Your task to perform on an android device: open chrome privacy settings Image 0: 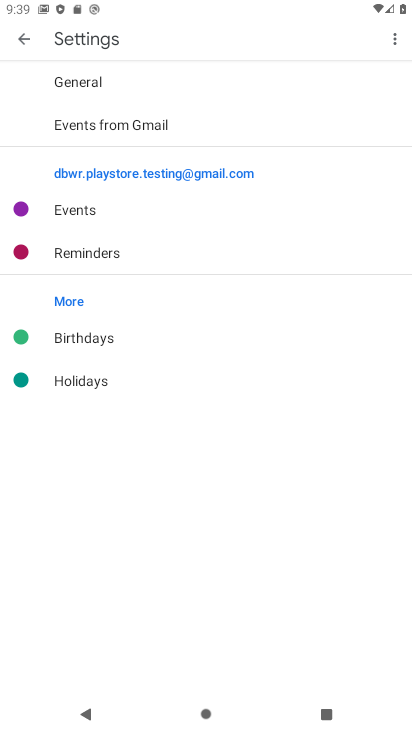
Step 0: press home button
Your task to perform on an android device: open chrome privacy settings Image 1: 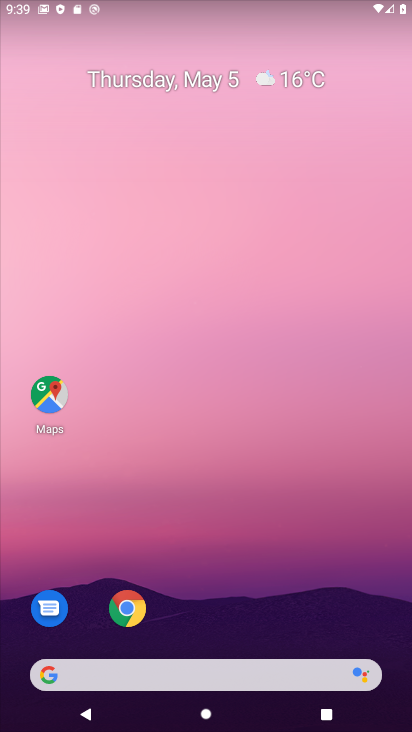
Step 1: click (130, 605)
Your task to perform on an android device: open chrome privacy settings Image 2: 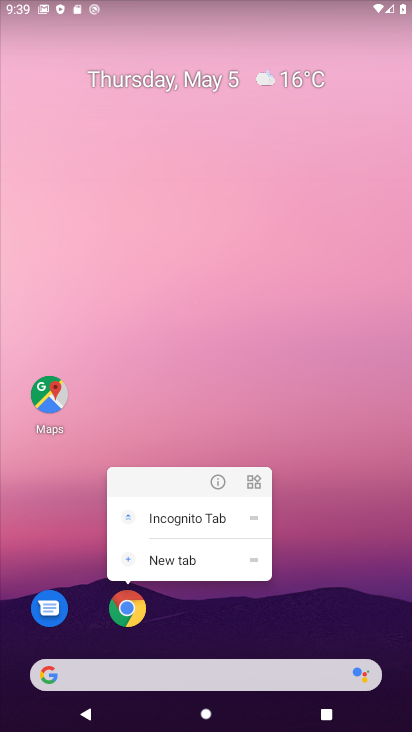
Step 2: click (125, 610)
Your task to perform on an android device: open chrome privacy settings Image 3: 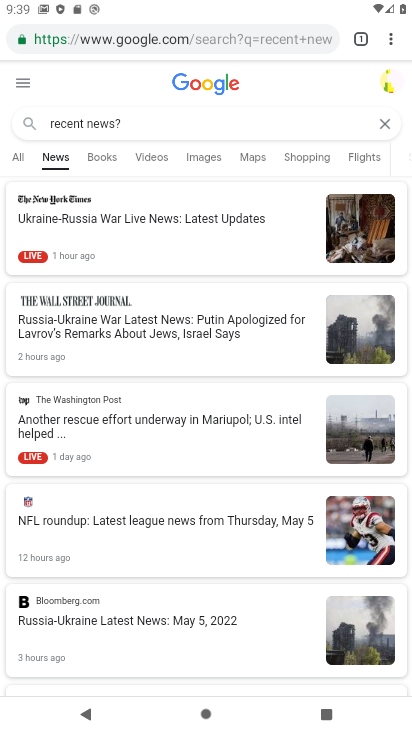
Step 3: drag from (393, 39) to (265, 440)
Your task to perform on an android device: open chrome privacy settings Image 4: 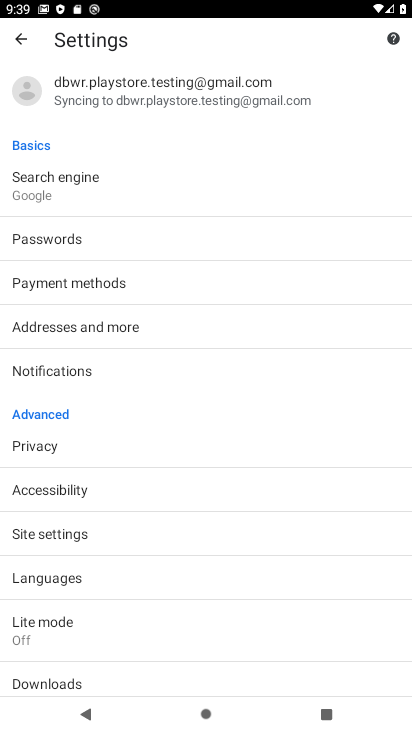
Step 4: click (30, 441)
Your task to perform on an android device: open chrome privacy settings Image 5: 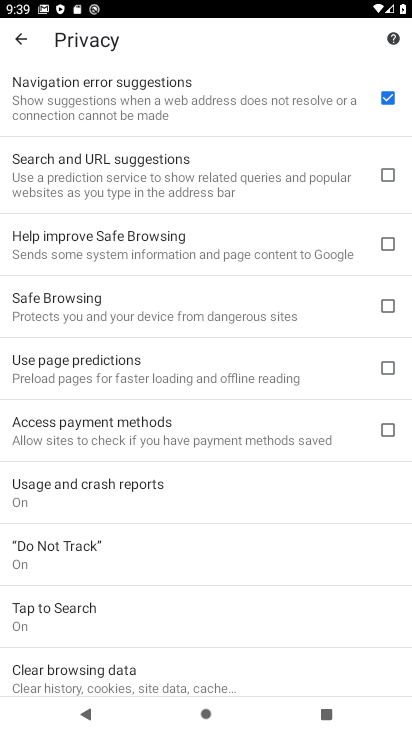
Step 5: task complete